Your task to perform on an android device: Empty the shopping cart on bestbuy.com. Image 0: 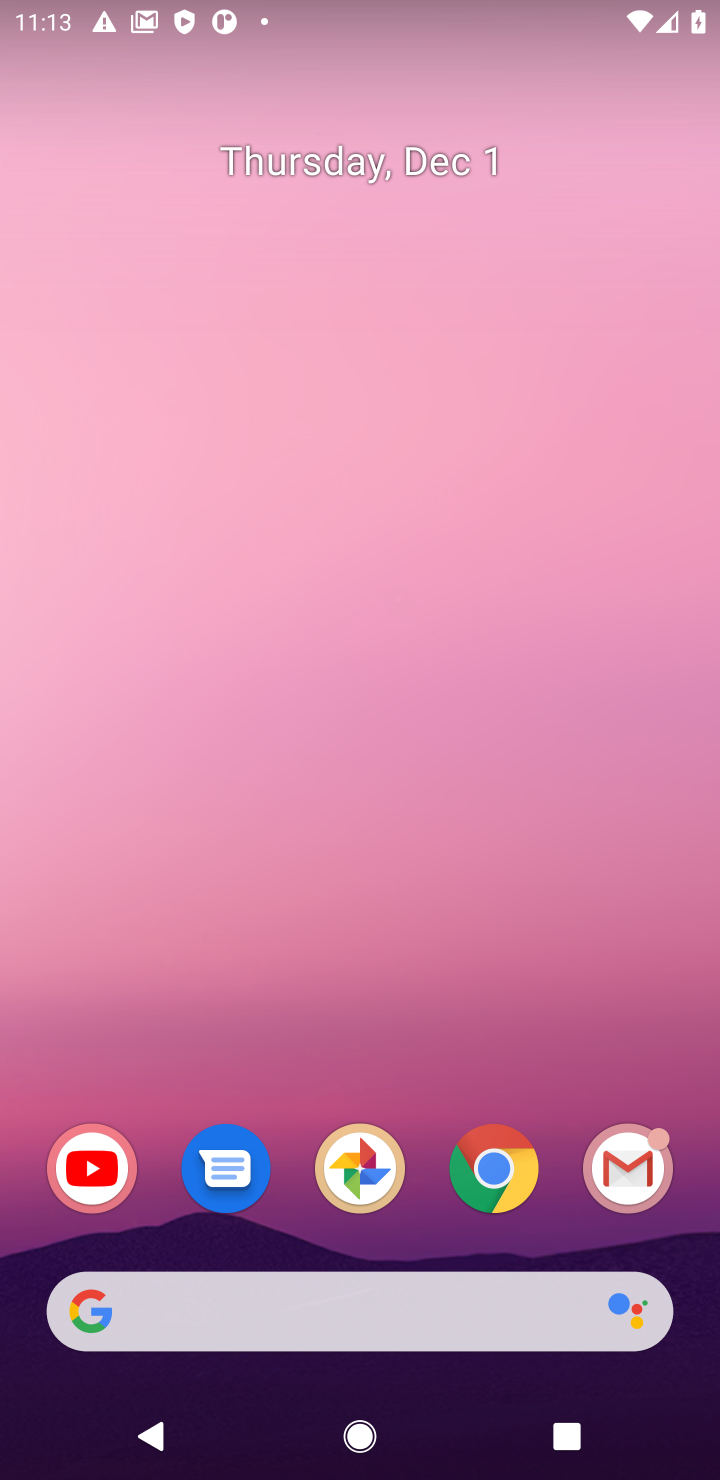
Step 0: click (497, 1184)
Your task to perform on an android device: Empty the shopping cart on bestbuy.com. Image 1: 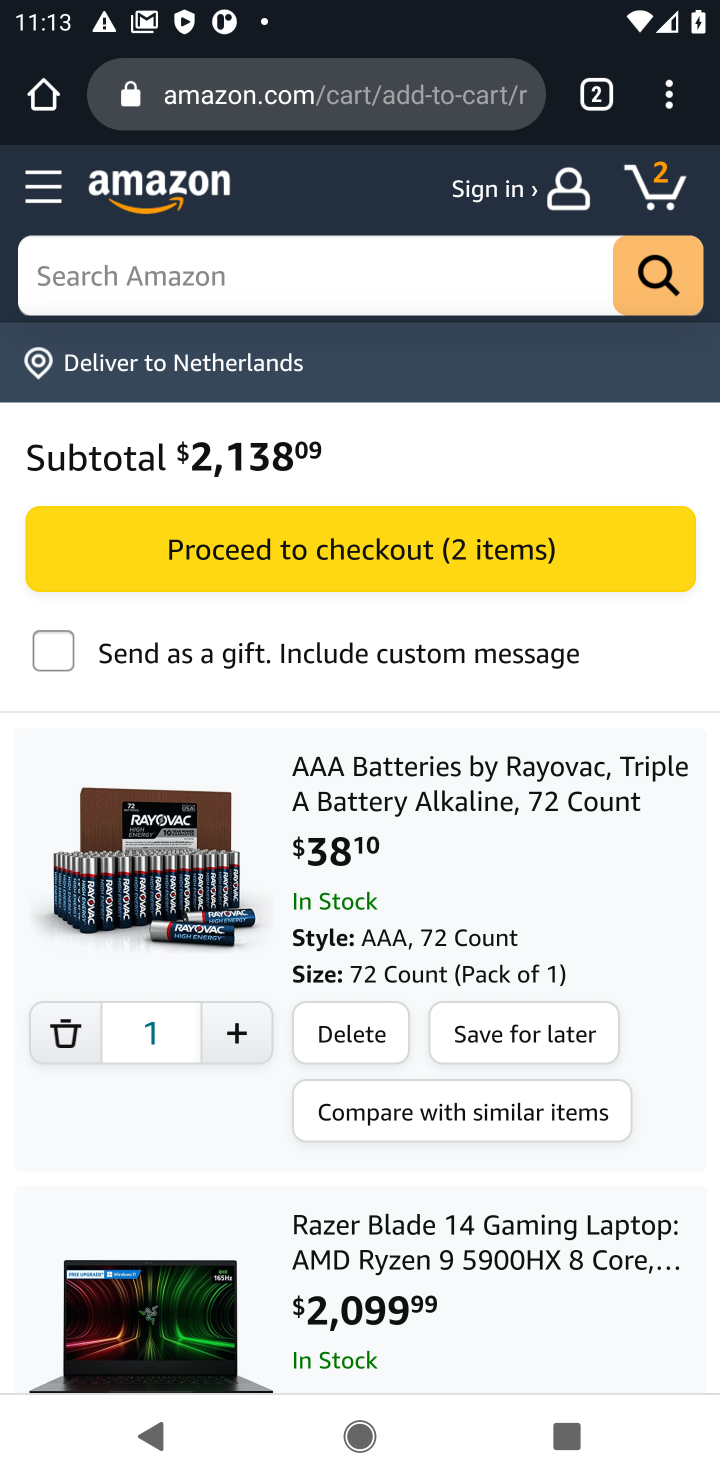
Step 1: click (260, 88)
Your task to perform on an android device: Empty the shopping cart on bestbuy.com. Image 2: 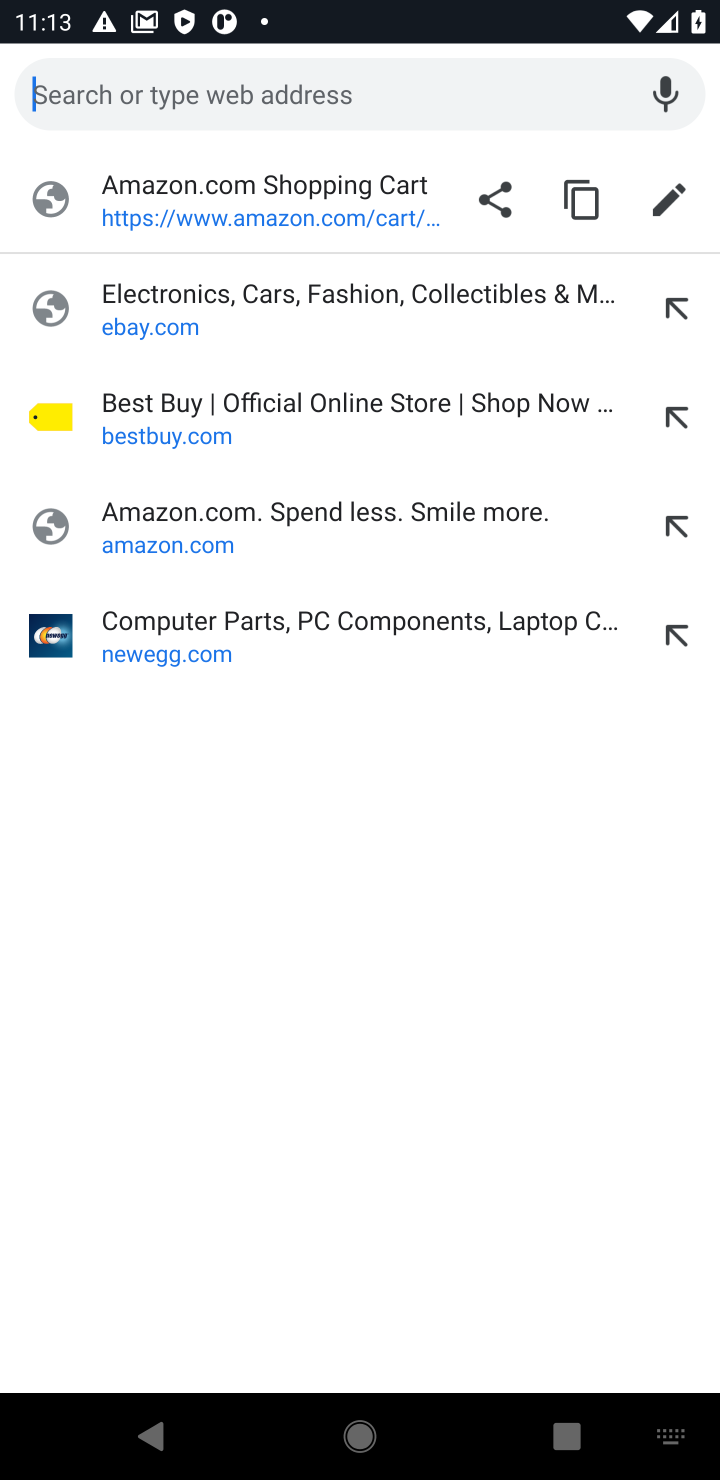
Step 2: click (157, 432)
Your task to perform on an android device: Empty the shopping cart on bestbuy.com. Image 3: 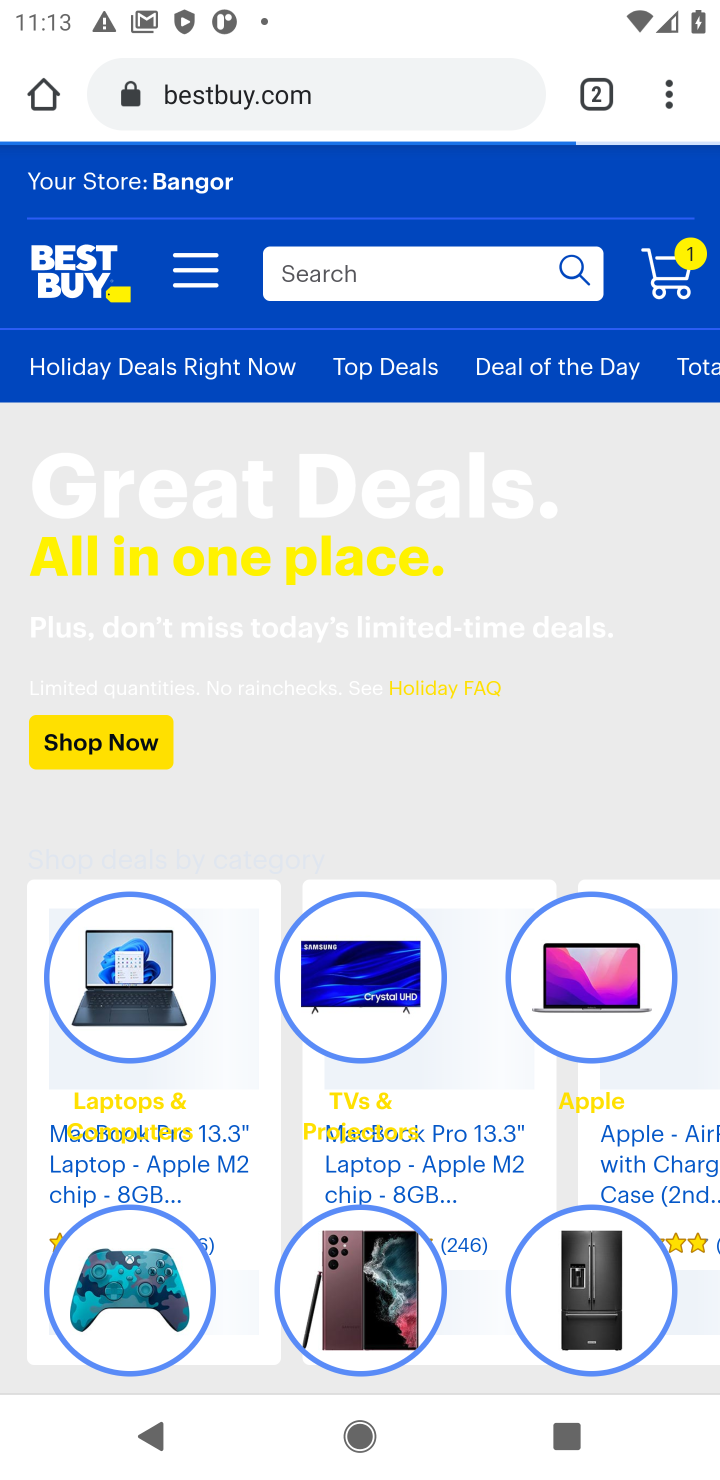
Step 3: click (670, 280)
Your task to perform on an android device: Empty the shopping cart on bestbuy.com. Image 4: 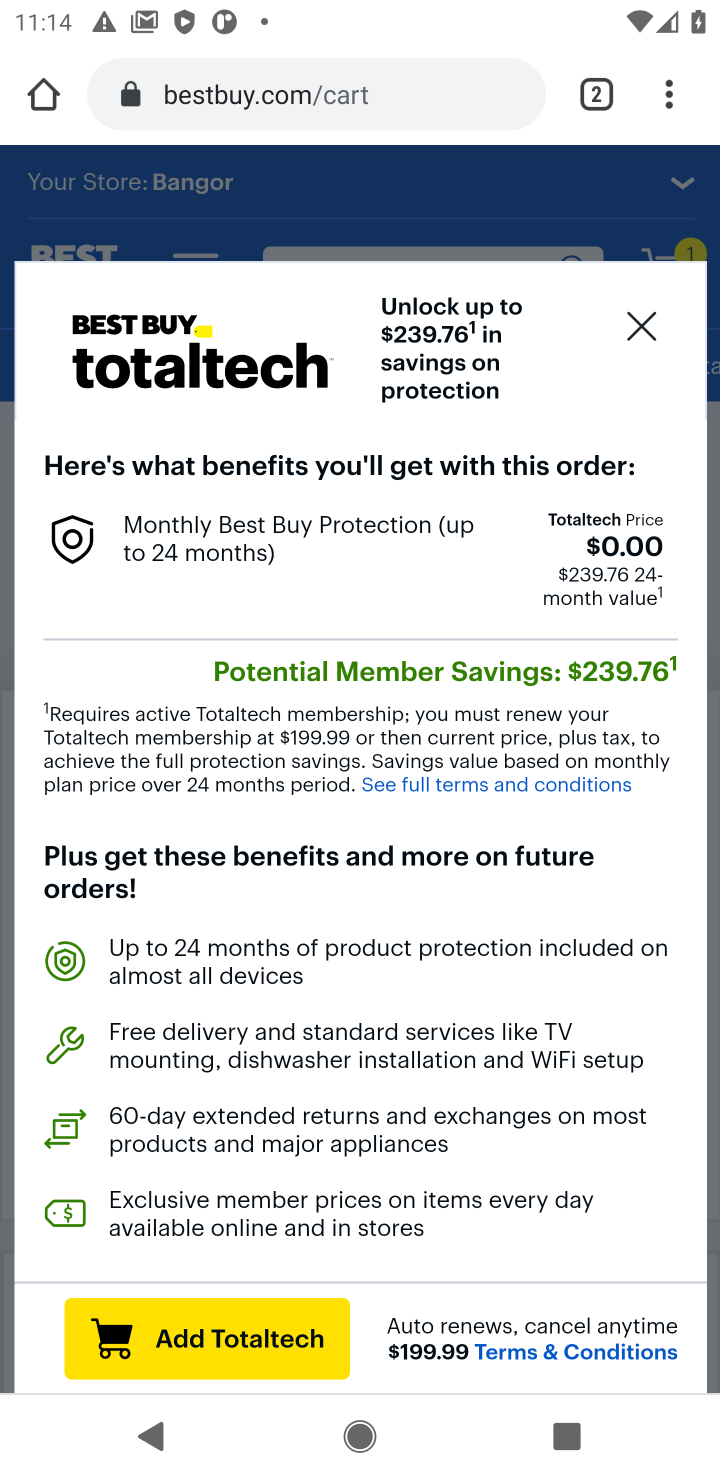
Step 4: click (647, 327)
Your task to perform on an android device: Empty the shopping cart on bestbuy.com. Image 5: 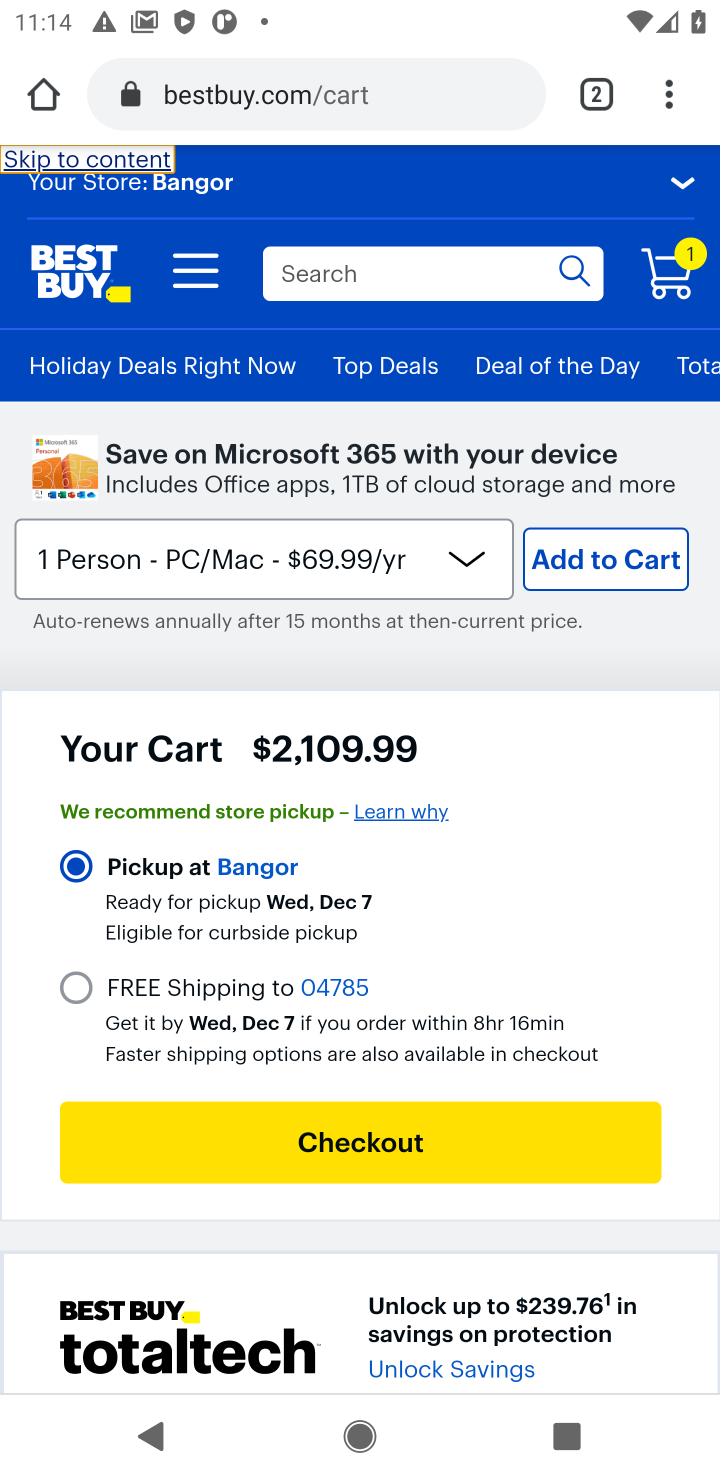
Step 5: drag from (413, 971) to (390, 158)
Your task to perform on an android device: Empty the shopping cart on bestbuy.com. Image 6: 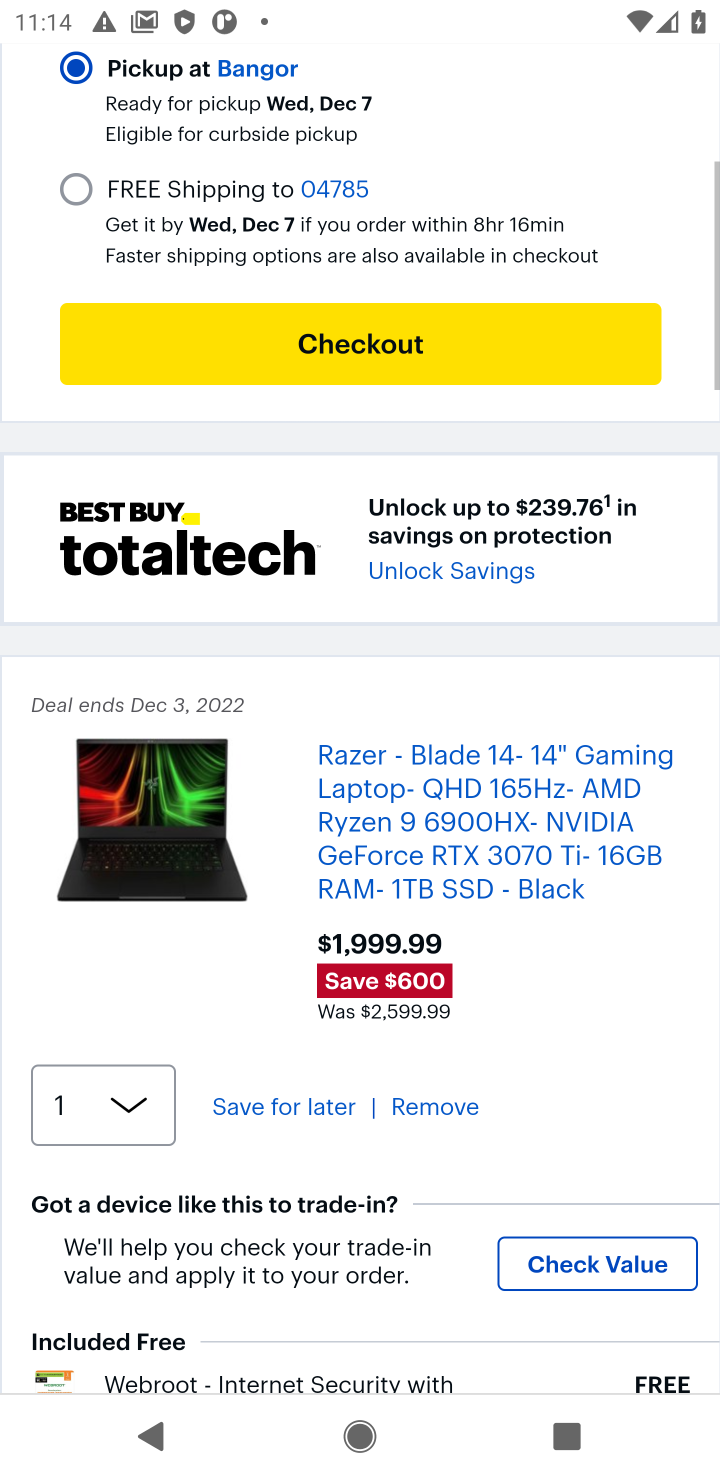
Step 6: drag from (483, 921) to (368, 321)
Your task to perform on an android device: Empty the shopping cart on bestbuy.com. Image 7: 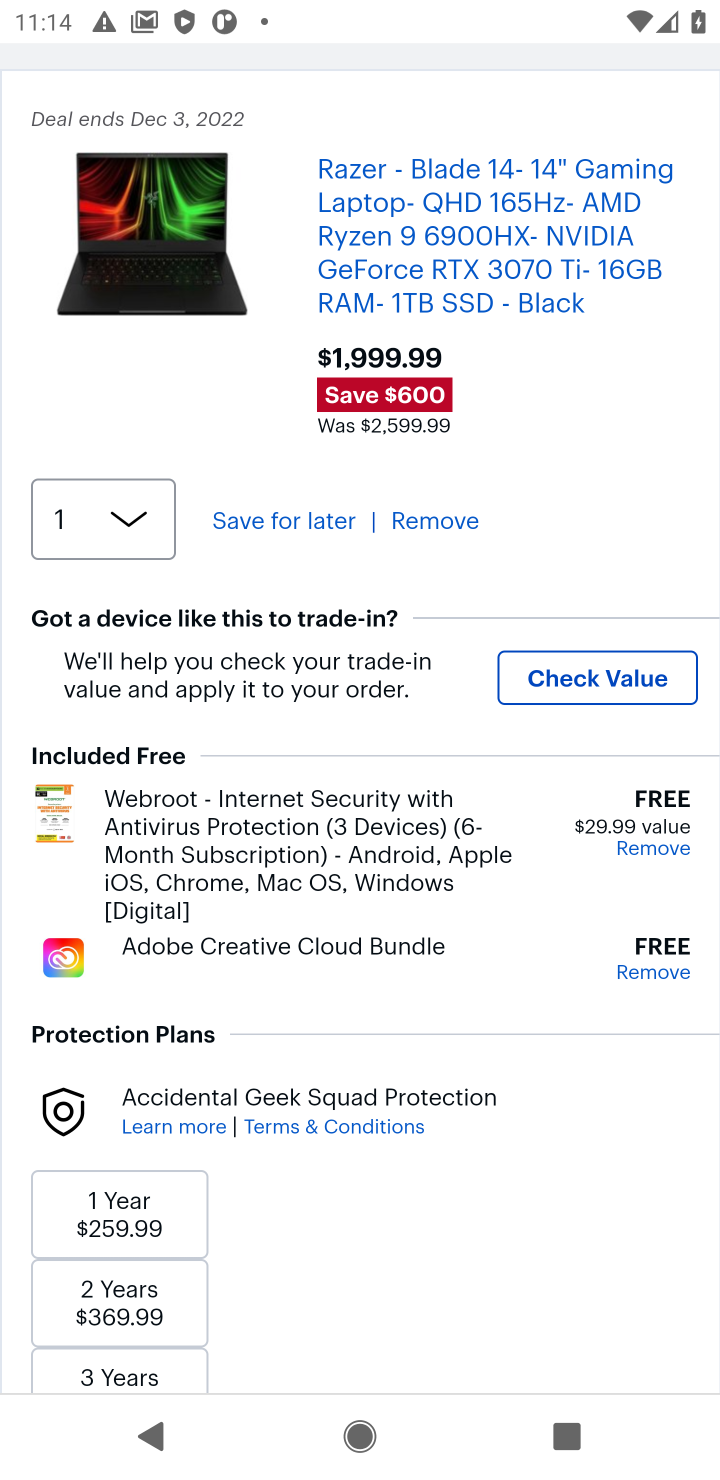
Step 7: click (408, 525)
Your task to perform on an android device: Empty the shopping cart on bestbuy.com. Image 8: 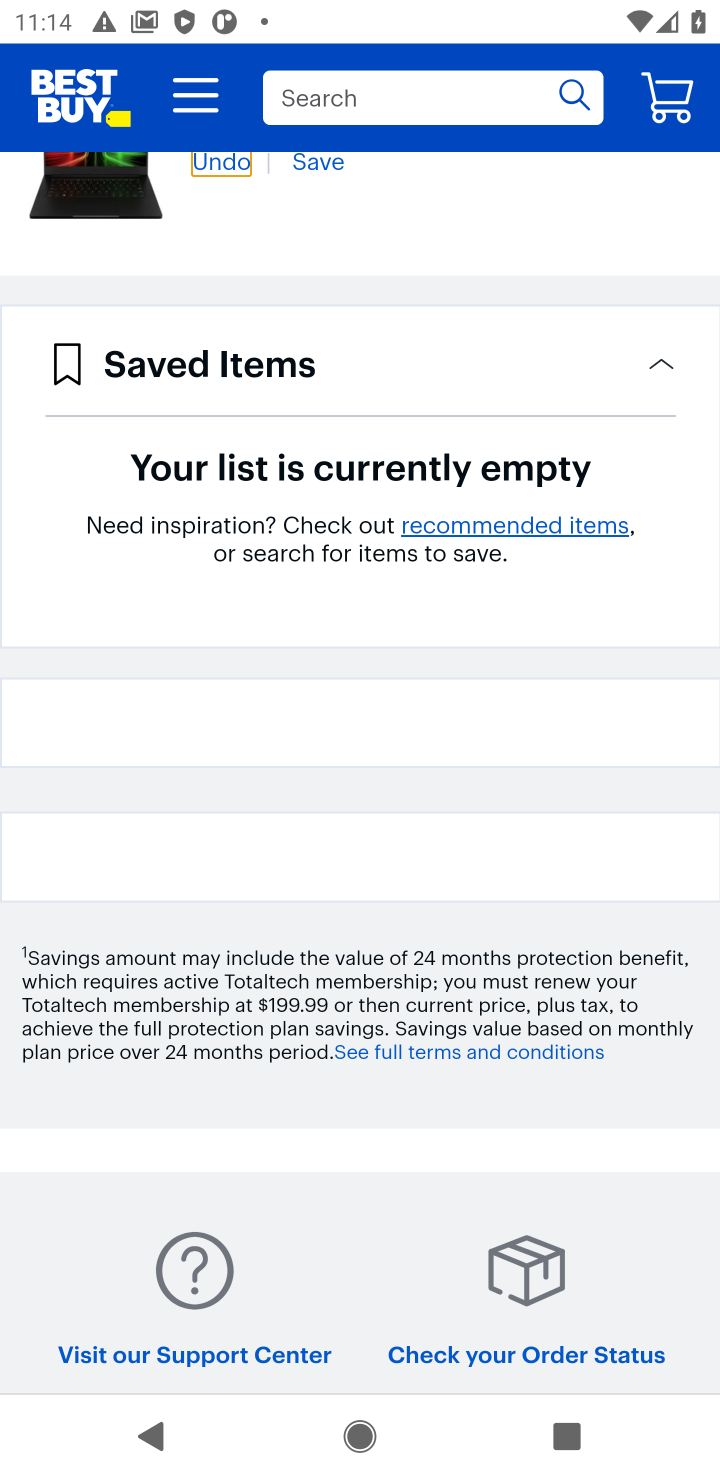
Step 8: task complete